Your task to perform on an android device: choose inbox layout in the gmail app Image 0: 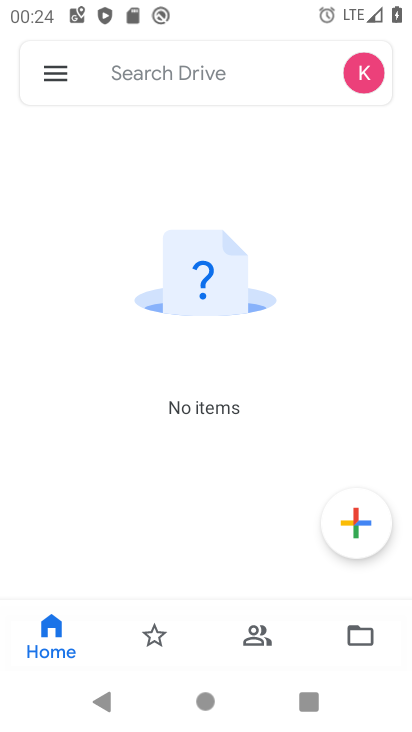
Step 0: press home button
Your task to perform on an android device: choose inbox layout in the gmail app Image 1: 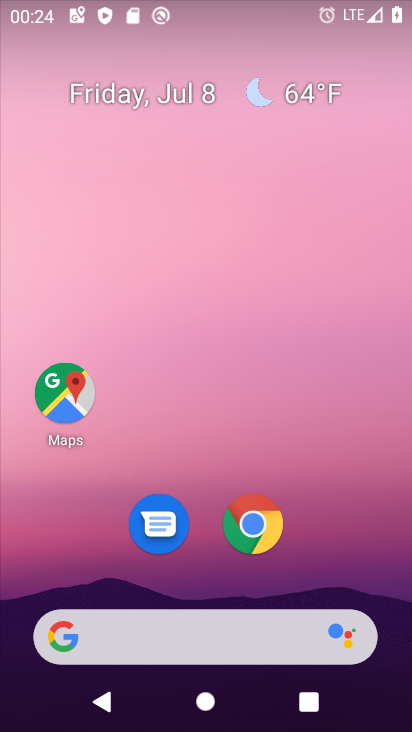
Step 1: drag from (342, 532) to (274, 57)
Your task to perform on an android device: choose inbox layout in the gmail app Image 2: 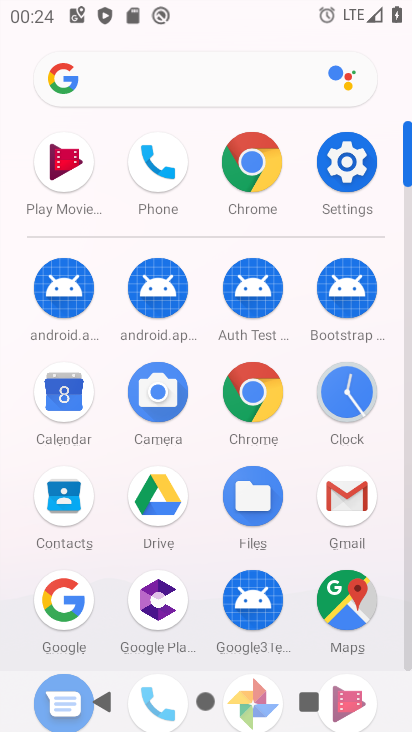
Step 2: click (351, 493)
Your task to perform on an android device: choose inbox layout in the gmail app Image 3: 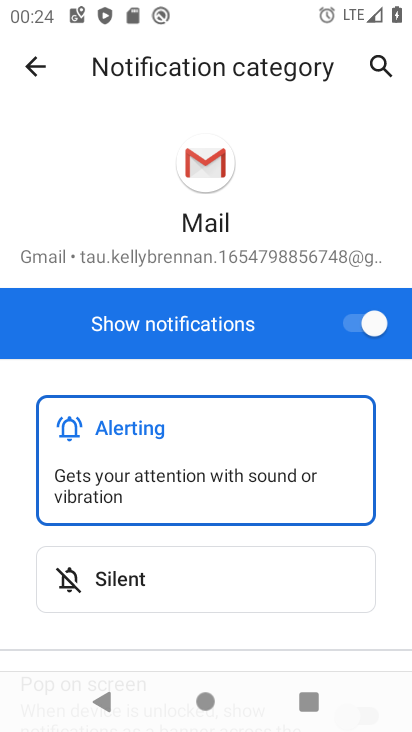
Step 3: click (33, 60)
Your task to perform on an android device: choose inbox layout in the gmail app Image 4: 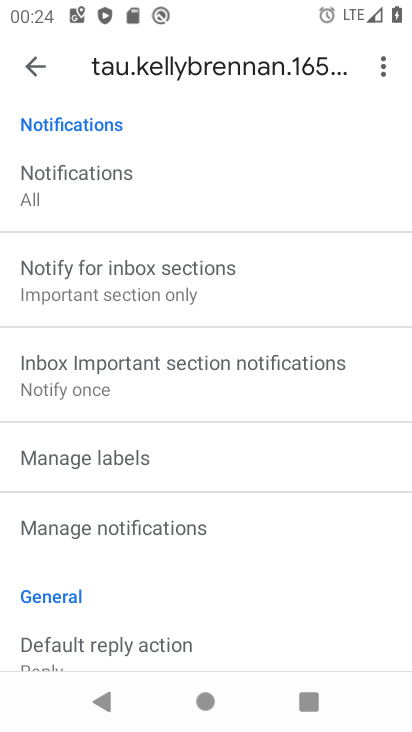
Step 4: drag from (199, 191) to (231, 612)
Your task to perform on an android device: choose inbox layout in the gmail app Image 5: 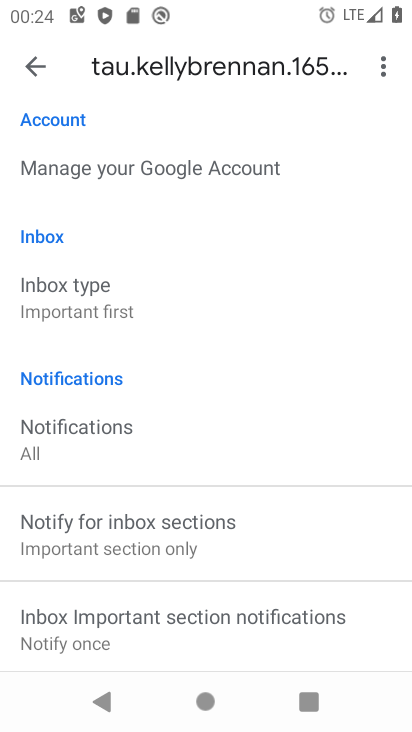
Step 5: click (71, 295)
Your task to perform on an android device: choose inbox layout in the gmail app Image 6: 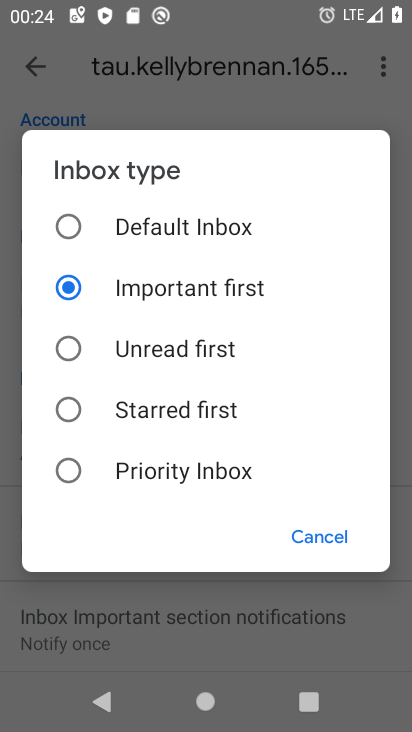
Step 6: click (58, 208)
Your task to perform on an android device: choose inbox layout in the gmail app Image 7: 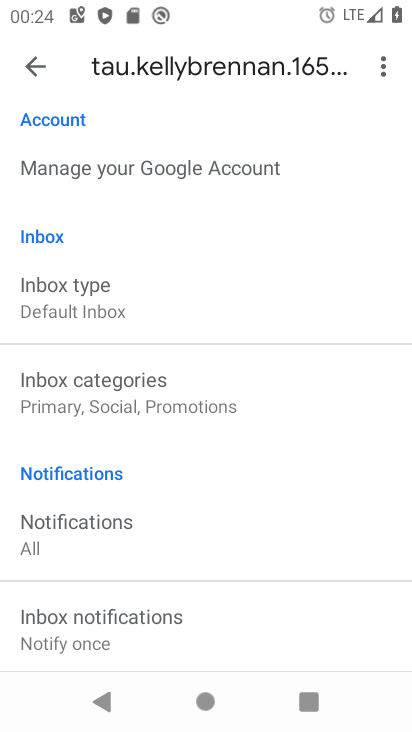
Step 7: task complete